Your task to perform on an android device: see creations saved in the google photos Image 0: 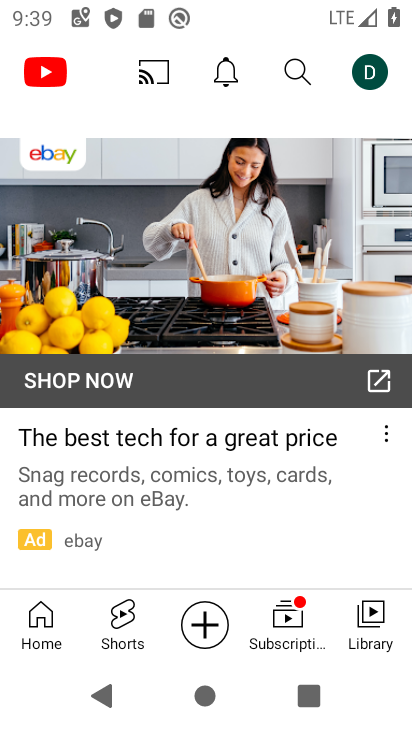
Step 0: press home button
Your task to perform on an android device: see creations saved in the google photos Image 1: 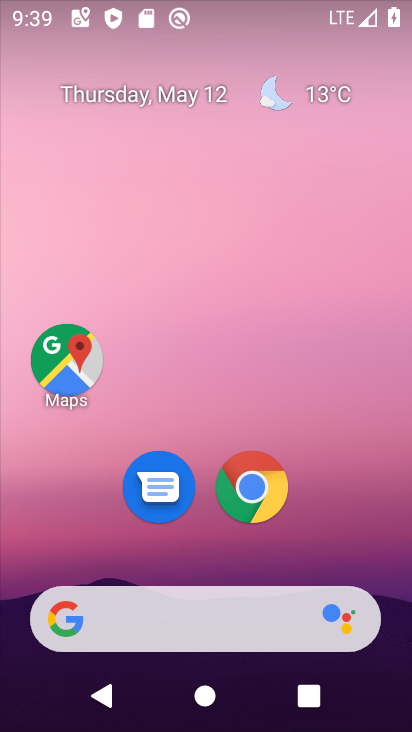
Step 1: drag from (381, 596) to (390, 0)
Your task to perform on an android device: see creations saved in the google photos Image 2: 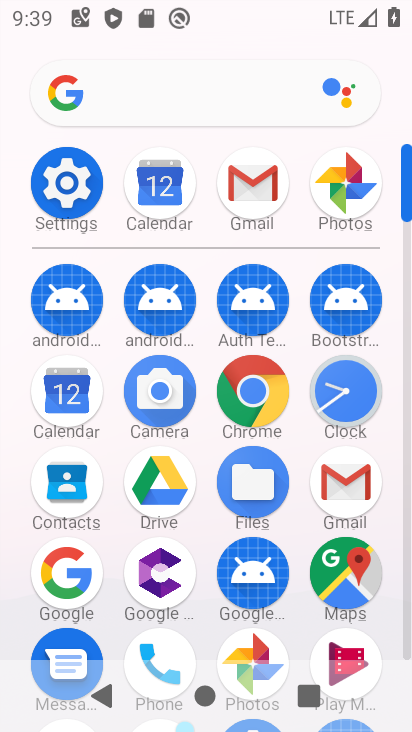
Step 2: click (345, 185)
Your task to perform on an android device: see creations saved in the google photos Image 3: 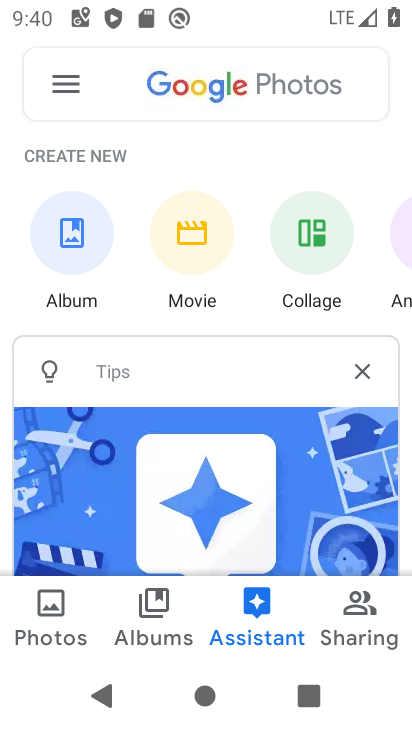
Step 3: click (190, 89)
Your task to perform on an android device: see creations saved in the google photos Image 4: 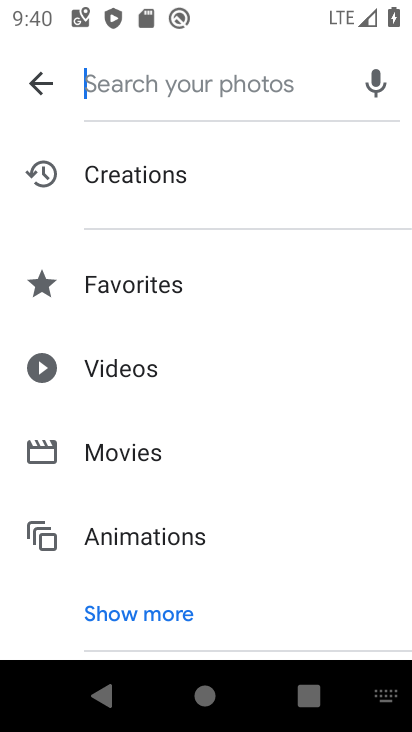
Step 4: click (154, 179)
Your task to perform on an android device: see creations saved in the google photos Image 5: 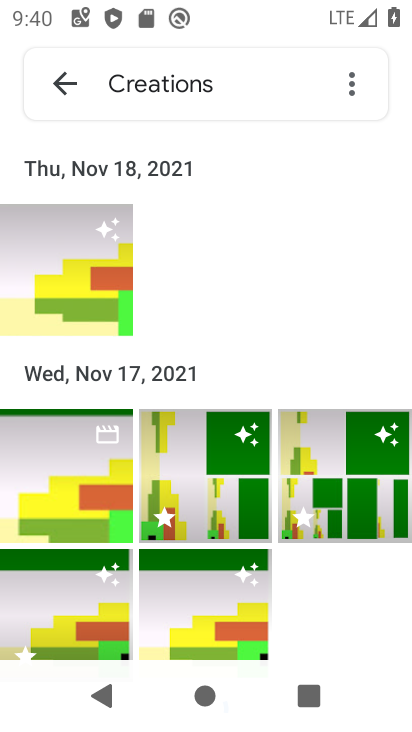
Step 5: task complete